Your task to perform on an android device: change timer sound Image 0: 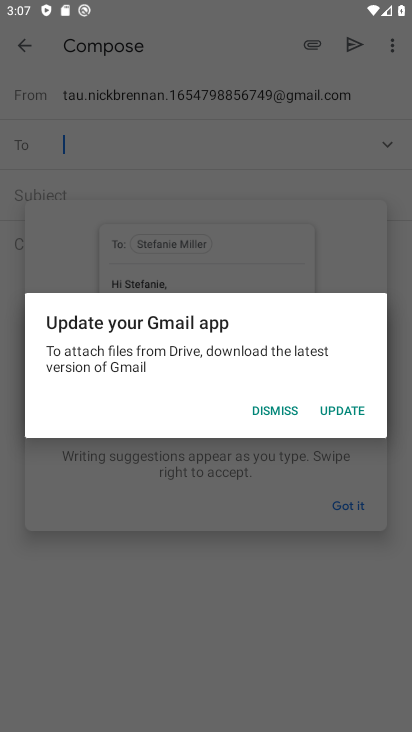
Step 0: press home button
Your task to perform on an android device: change timer sound Image 1: 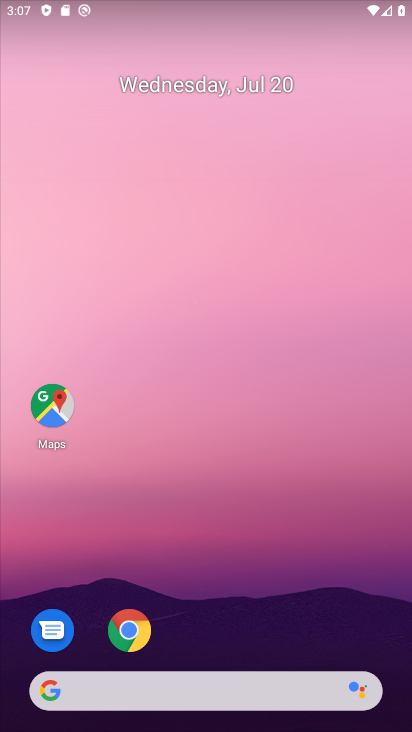
Step 1: drag from (311, 591) to (274, 19)
Your task to perform on an android device: change timer sound Image 2: 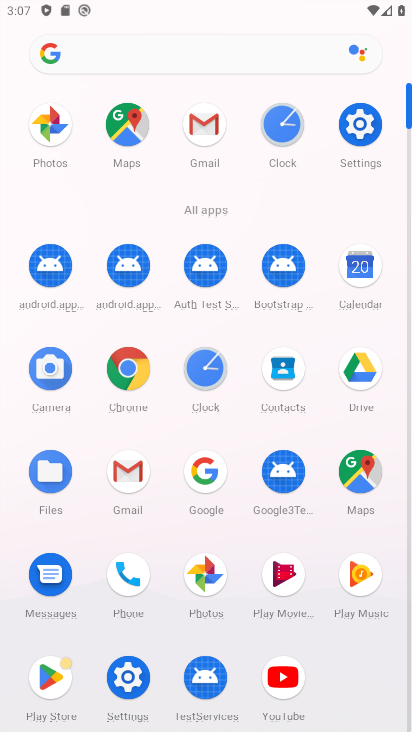
Step 2: click (213, 366)
Your task to perform on an android device: change timer sound Image 3: 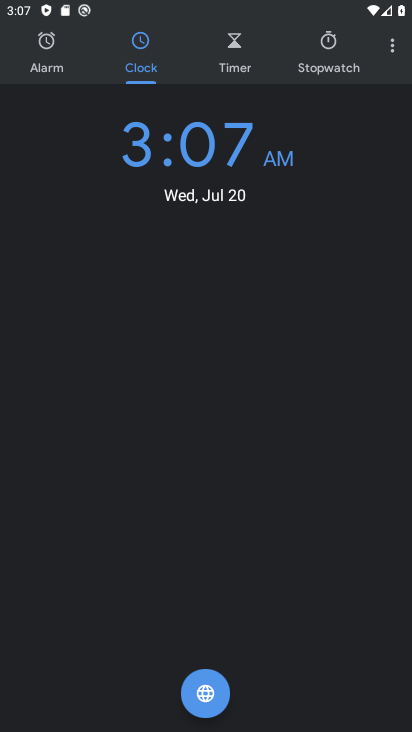
Step 3: click (397, 53)
Your task to perform on an android device: change timer sound Image 4: 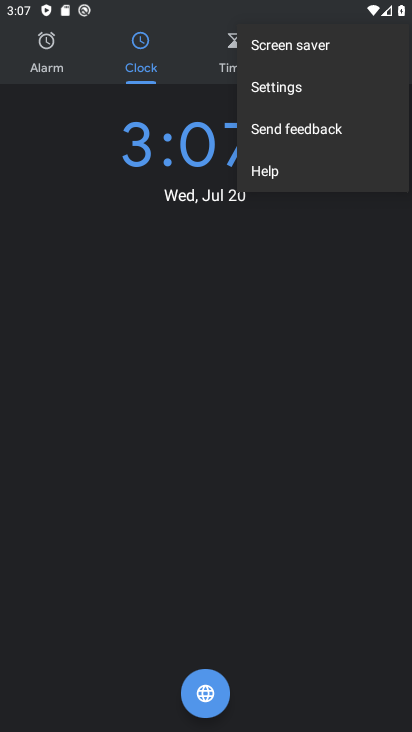
Step 4: click (262, 86)
Your task to perform on an android device: change timer sound Image 5: 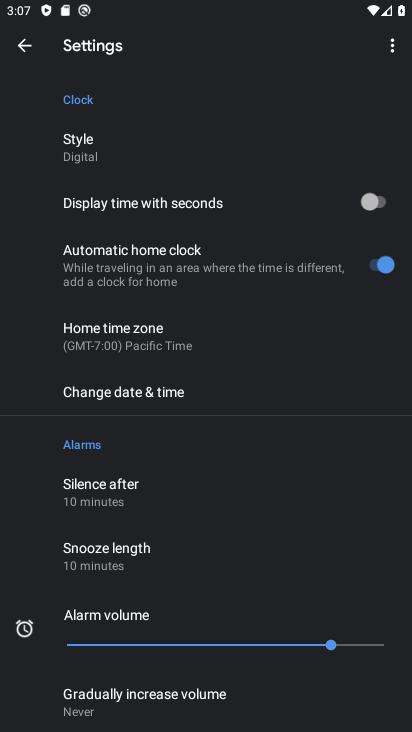
Step 5: drag from (212, 549) to (192, 299)
Your task to perform on an android device: change timer sound Image 6: 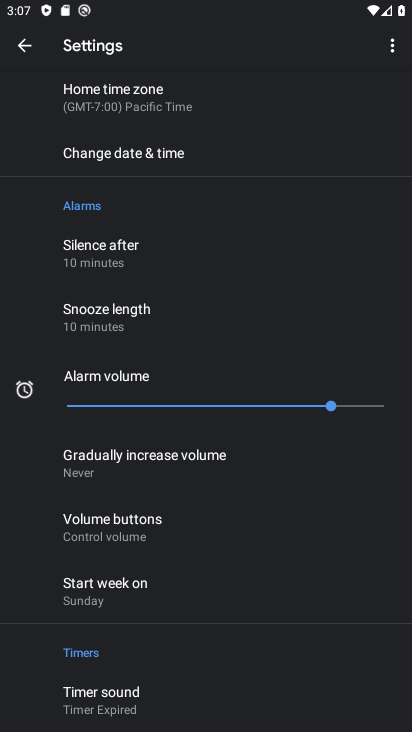
Step 6: click (210, 682)
Your task to perform on an android device: change timer sound Image 7: 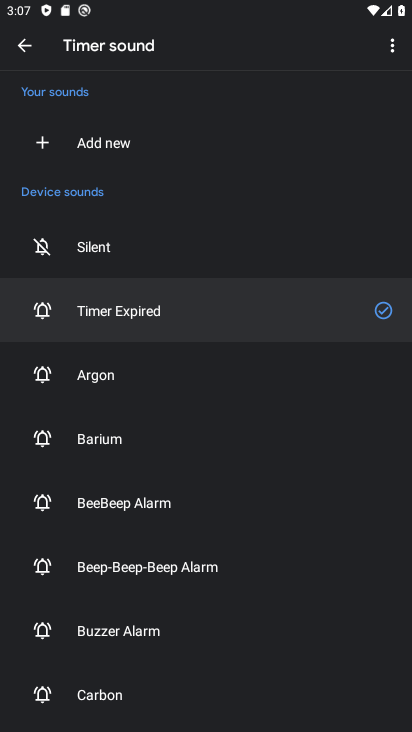
Step 7: click (134, 450)
Your task to perform on an android device: change timer sound Image 8: 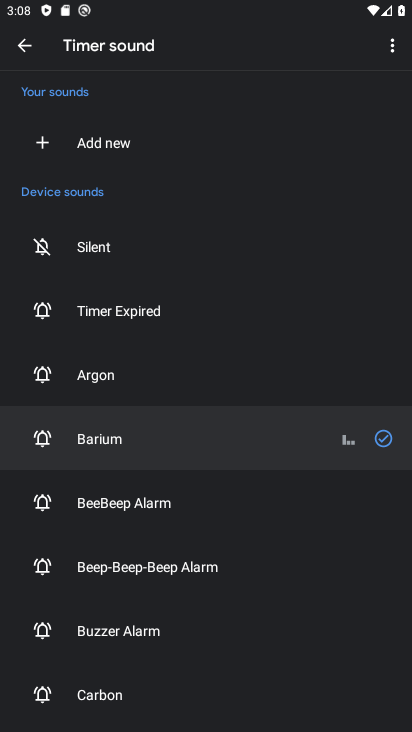
Step 8: task complete